Your task to perform on an android device: Open location settings Image 0: 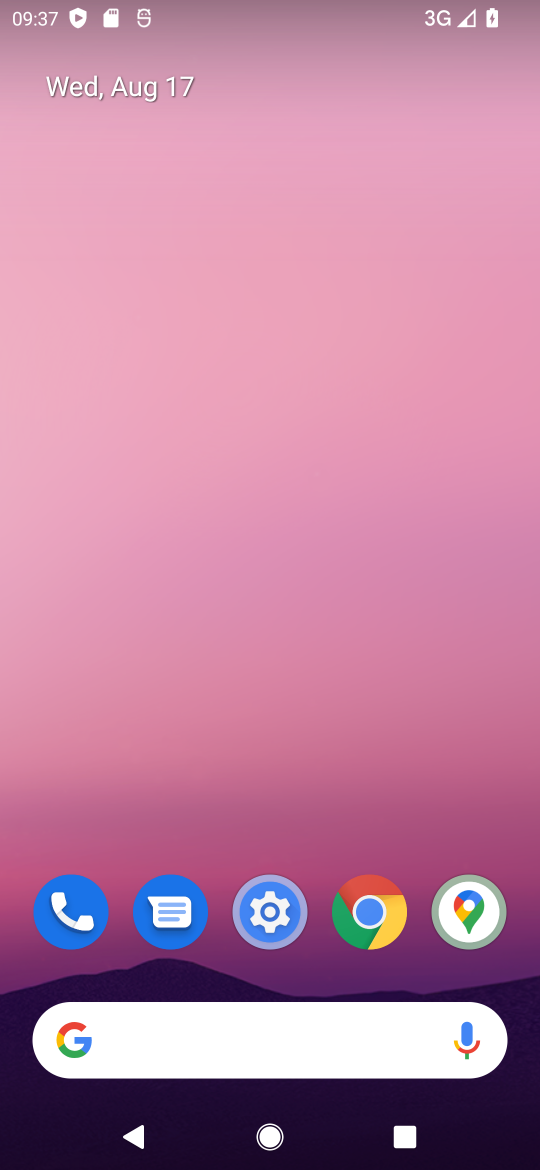
Step 0: drag from (223, 958) to (226, 252)
Your task to perform on an android device: Open location settings Image 1: 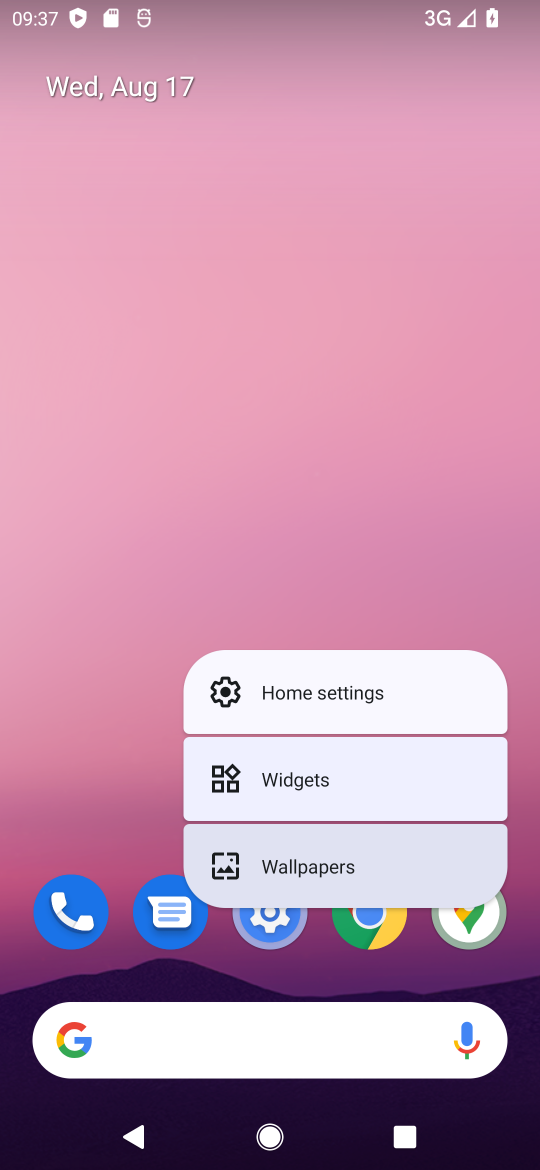
Step 1: drag from (272, 763) to (216, 218)
Your task to perform on an android device: Open location settings Image 2: 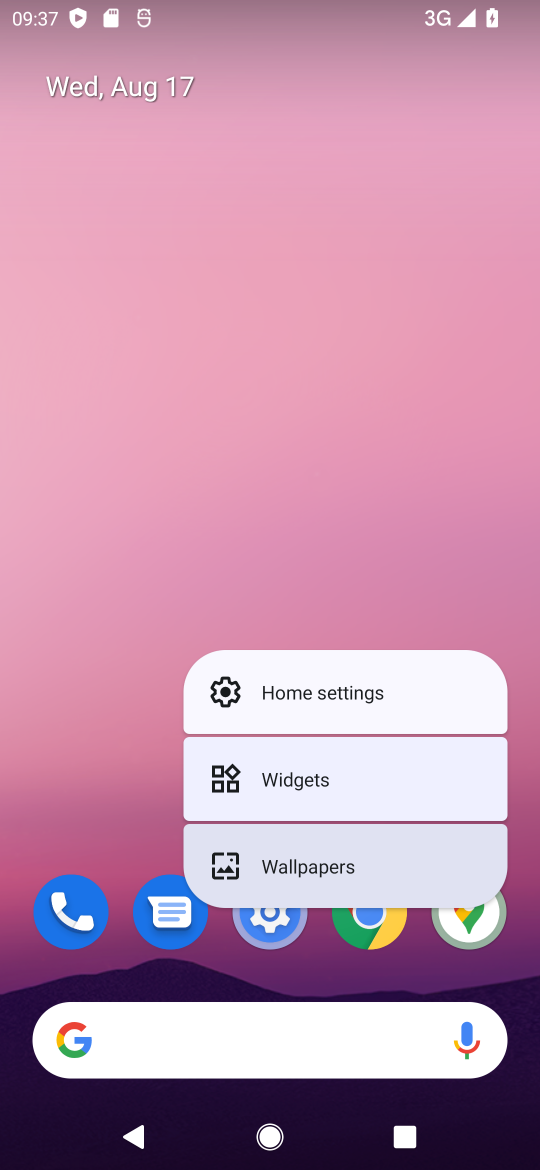
Step 2: click (111, 733)
Your task to perform on an android device: Open location settings Image 3: 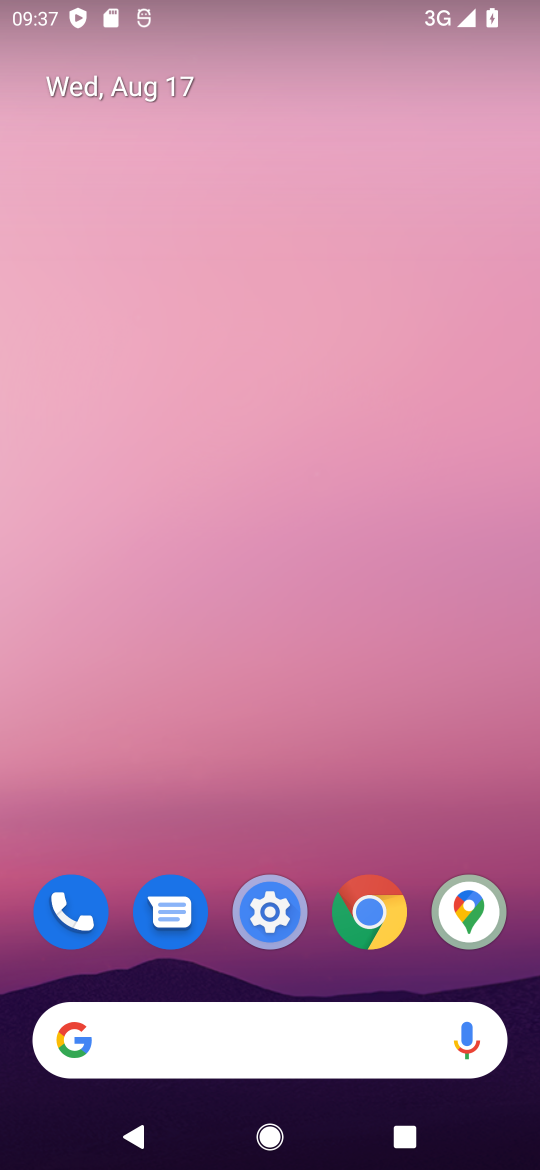
Step 3: click (250, 924)
Your task to perform on an android device: Open location settings Image 4: 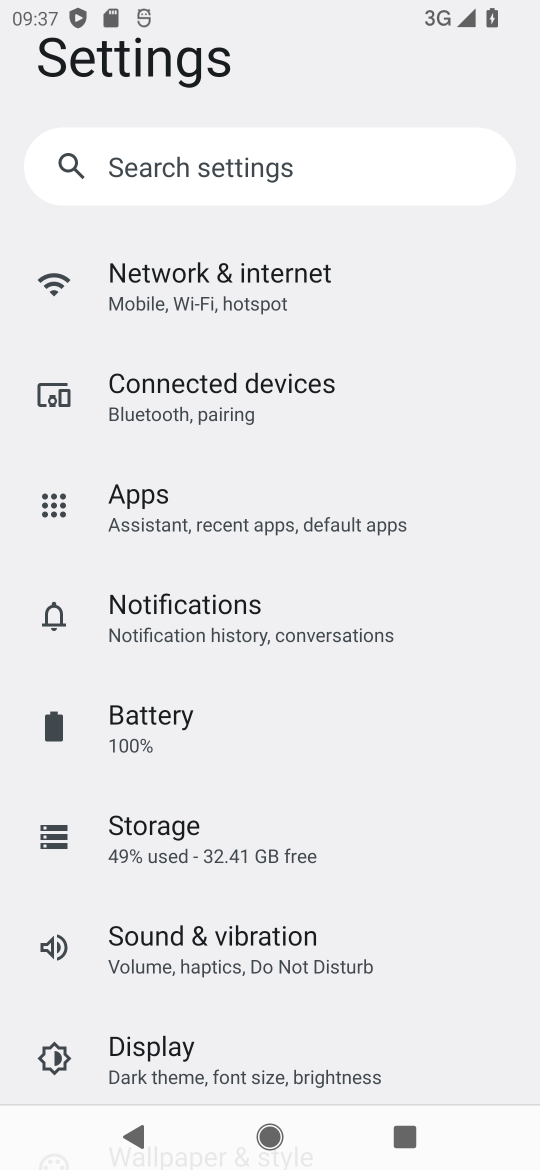
Step 4: drag from (249, 1004) to (127, 325)
Your task to perform on an android device: Open location settings Image 5: 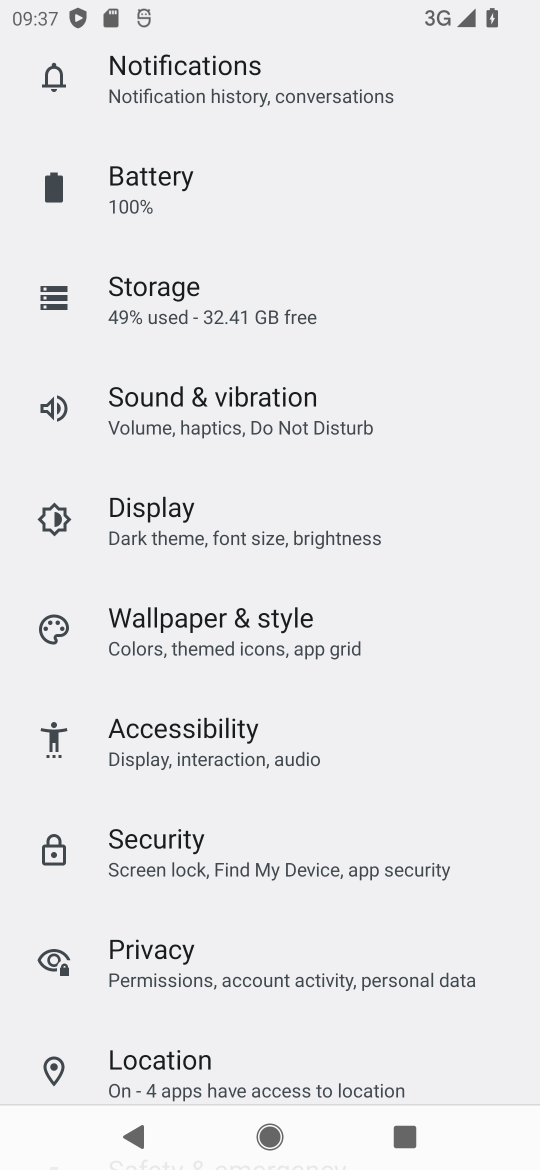
Step 5: click (168, 1079)
Your task to perform on an android device: Open location settings Image 6: 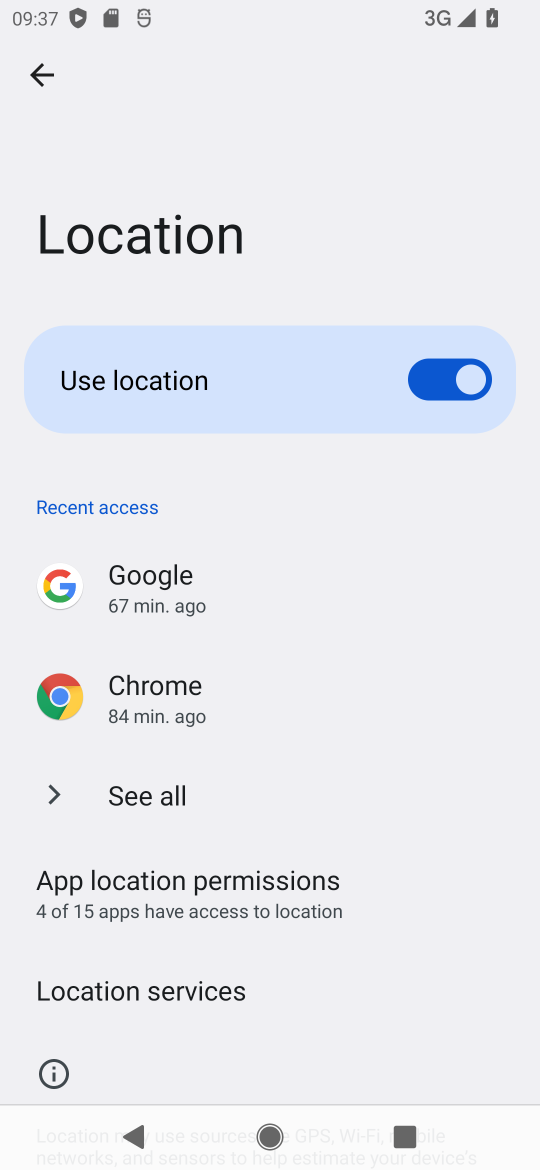
Step 6: drag from (156, 909) to (103, 260)
Your task to perform on an android device: Open location settings Image 7: 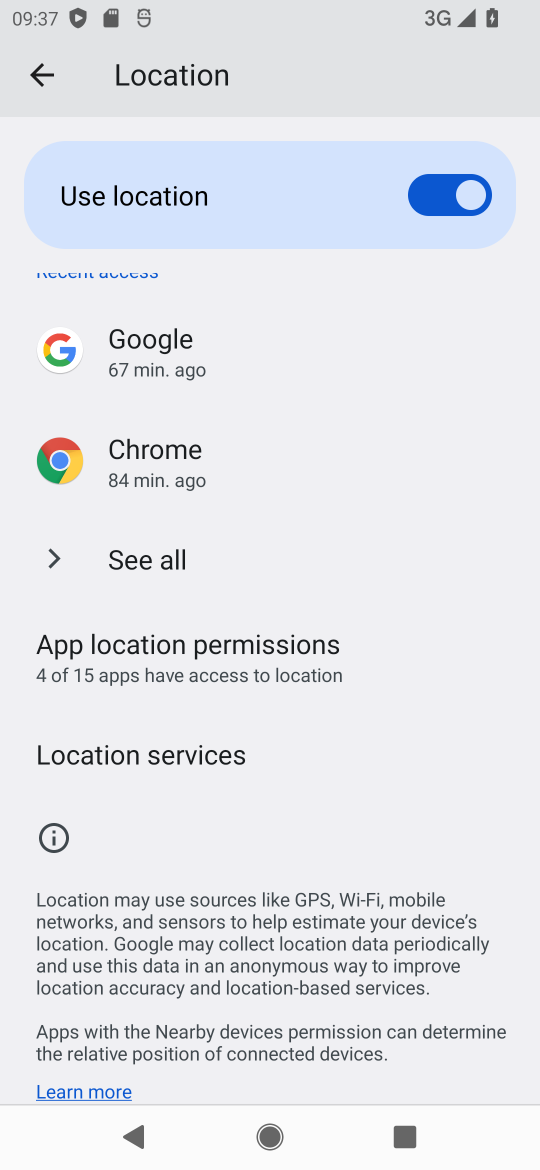
Step 7: drag from (156, 800) to (160, 385)
Your task to perform on an android device: Open location settings Image 8: 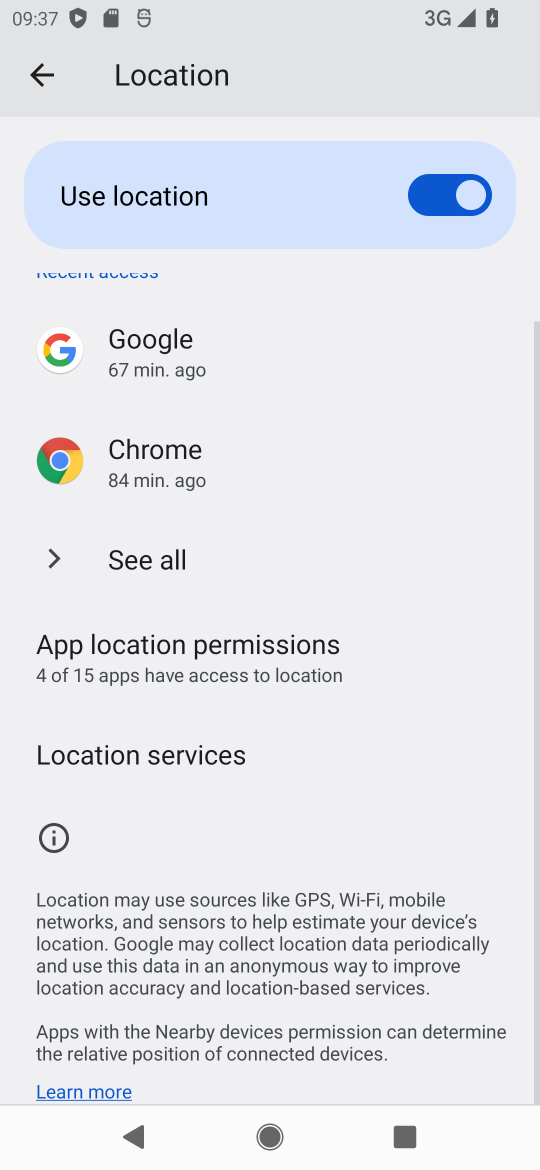
Step 8: click (148, 748)
Your task to perform on an android device: Open location settings Image 9: 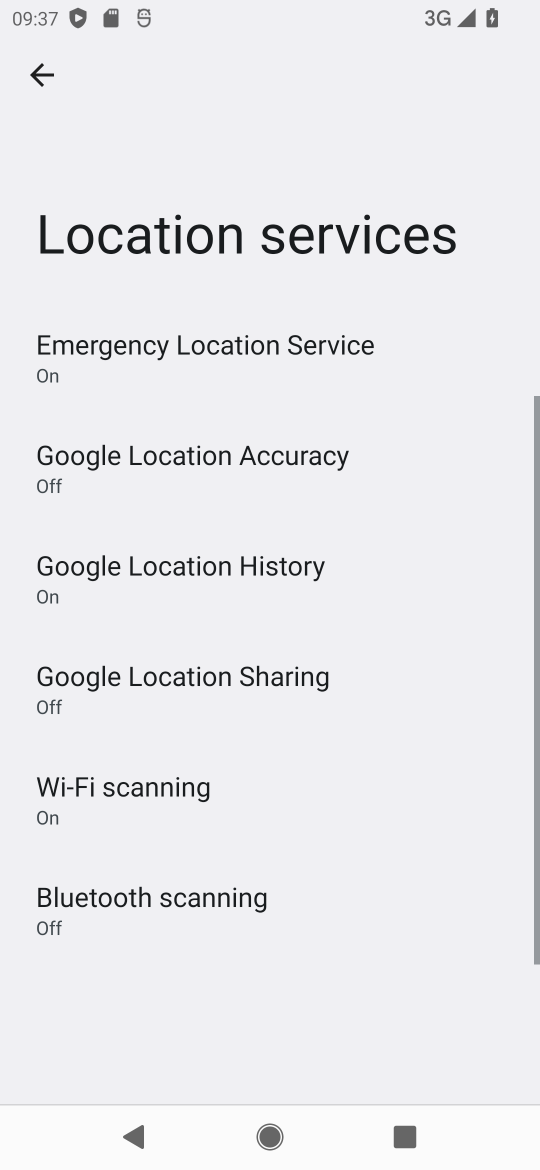
Step 9: task complete